Your task to perform on an android device: Is it going to rain tomorrow? Image 0: 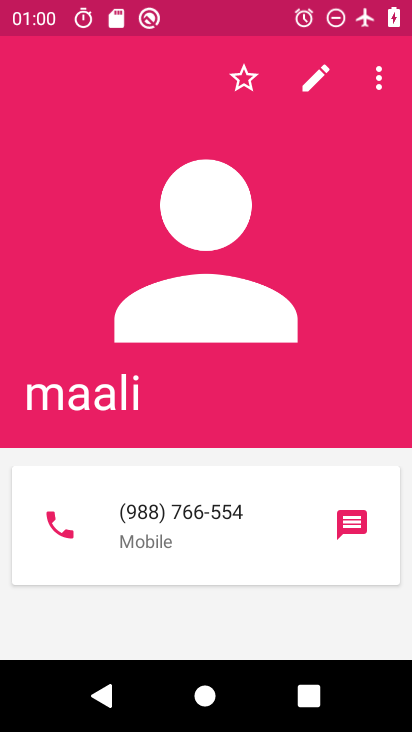
Step 0: press home button
Your task to perform on an android device: Is it going to rain tomorrow? Image 1: 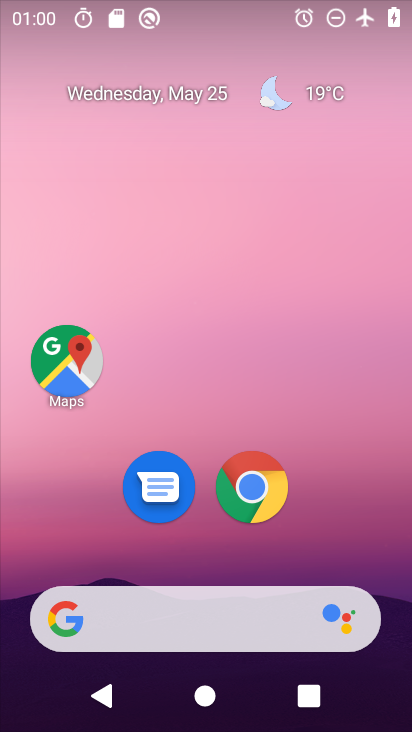
Step 1: click (327, 98)
Your task to perform on an android device: Is it going to rain tomorrow? Image 2: 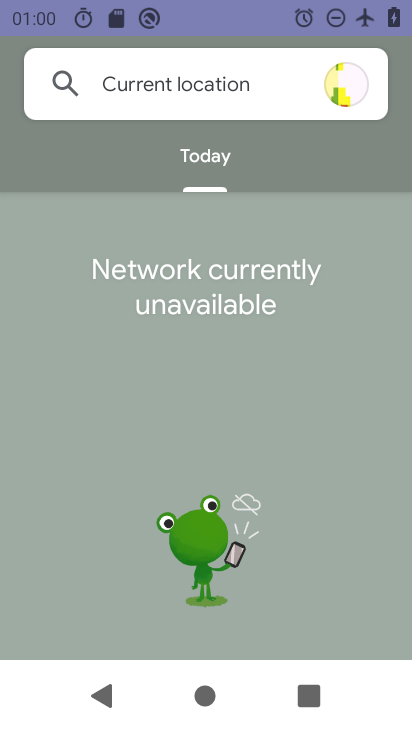
Step 2: task complete